Your task to perform on an android device: Open Youtube and go to "Your channel" Image 0: 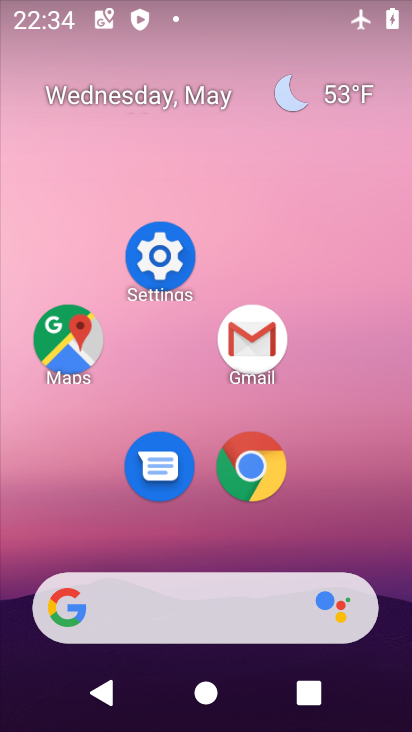
Step 0: click (374, 126)
Your task to perform on an android device: Open Youtube and go to "Your channel" Image 1: 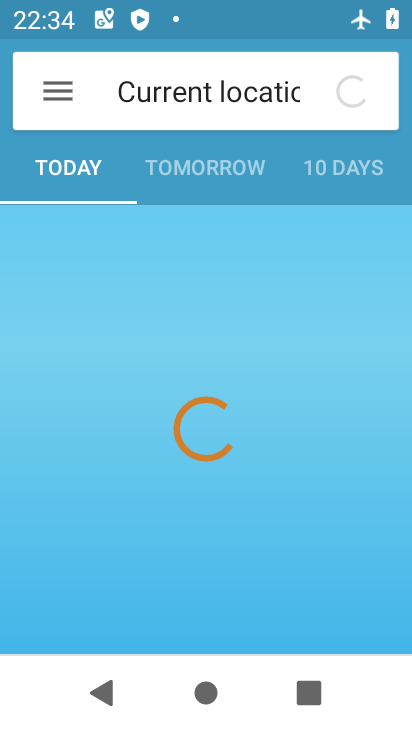
Step 1: drag from (223, 466) to (252, 31)
Your task to perform on an android device: Open Youtube and go to "Your channel" Image 2: 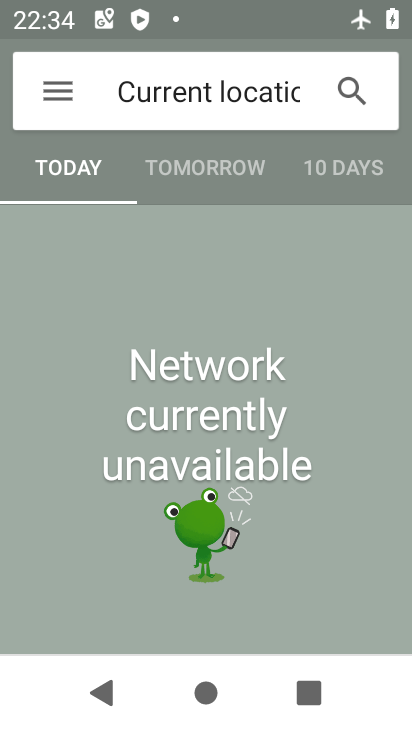
Step 2: press home button
Your task to perform on an android device: Open Youtube and go to "Your channel" Image 3: 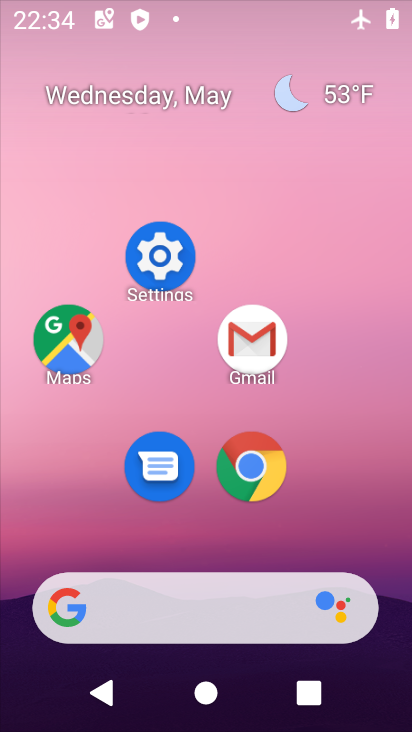
Step 3: drag from (215, 584) to (211, 166)
Your task to perform on an android device: Open Youtube and go to "Your channel" Image 4: 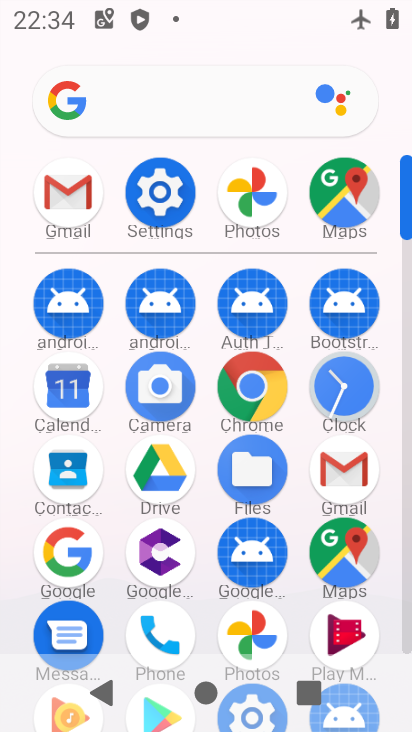
Step 4: drag from (210, 642) to (214, 282)
Your task to perform on an android device: Open Youtube and go to "Your channel" Image 5: 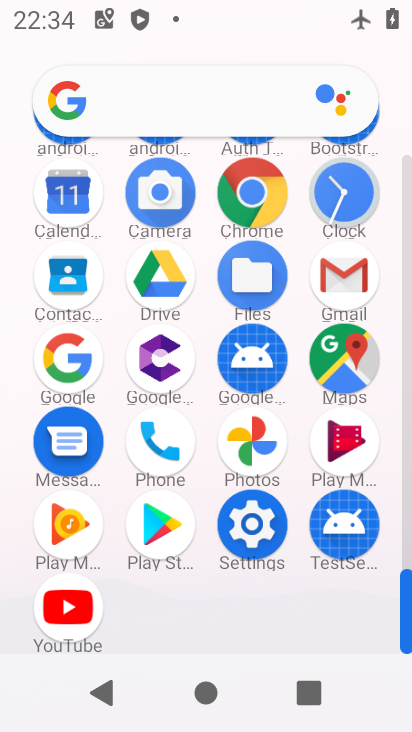
Step 5: click (55, 609)
Your task to perform on an android device: Open Youtube and go to "Your channel" Image 6: 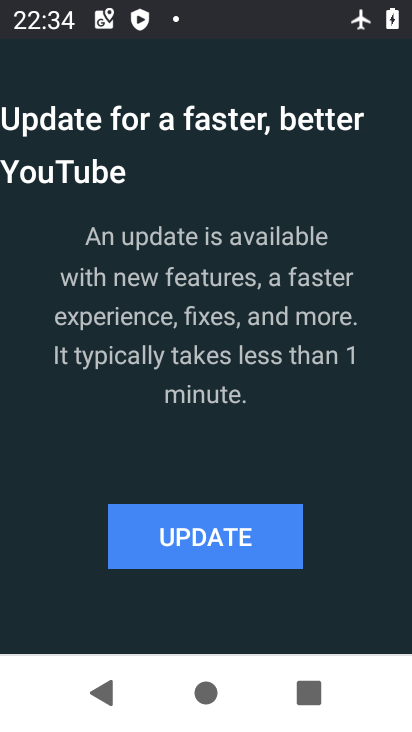
Step 6: click (175, 538)
Your task to perform on an android device: Open Youtube and go to "Your channel" Image 7: 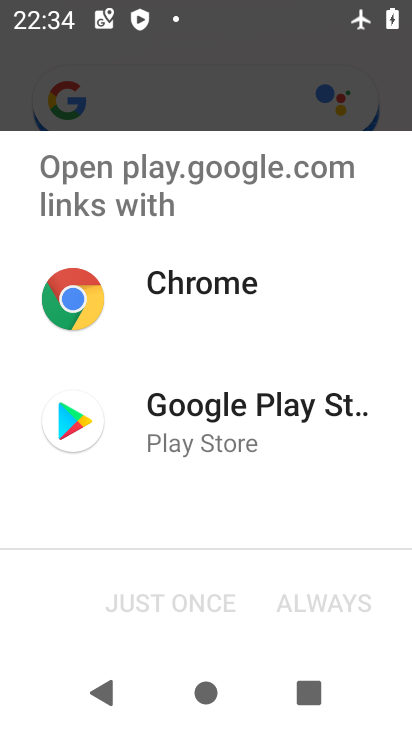
Step 7: task complete